Your task to perform on an android device: change notifications settings Image 0: 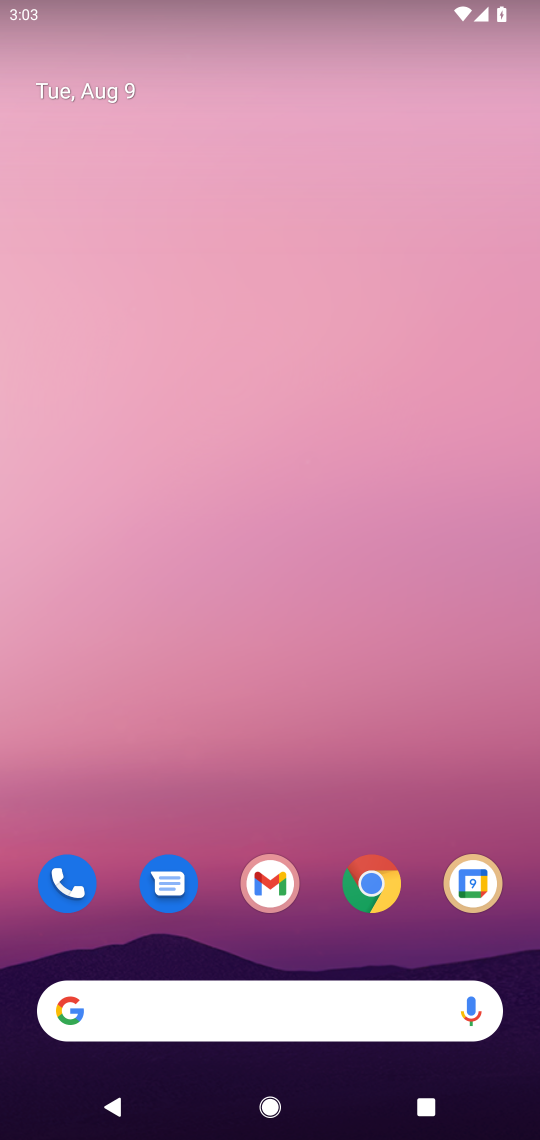
Step 0: drag from (417, 958) to (399, 22)
Your task to perform on an android device: change notifications settings Image 1: 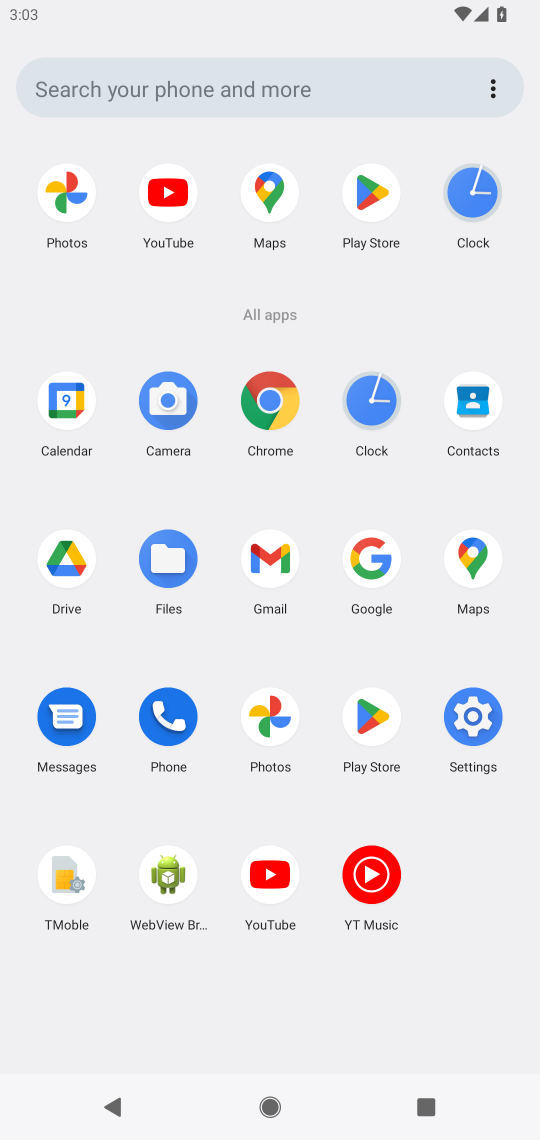
Step 1: click (476, 721)
Your task to perform on an android device: change notifications settings Image 2: 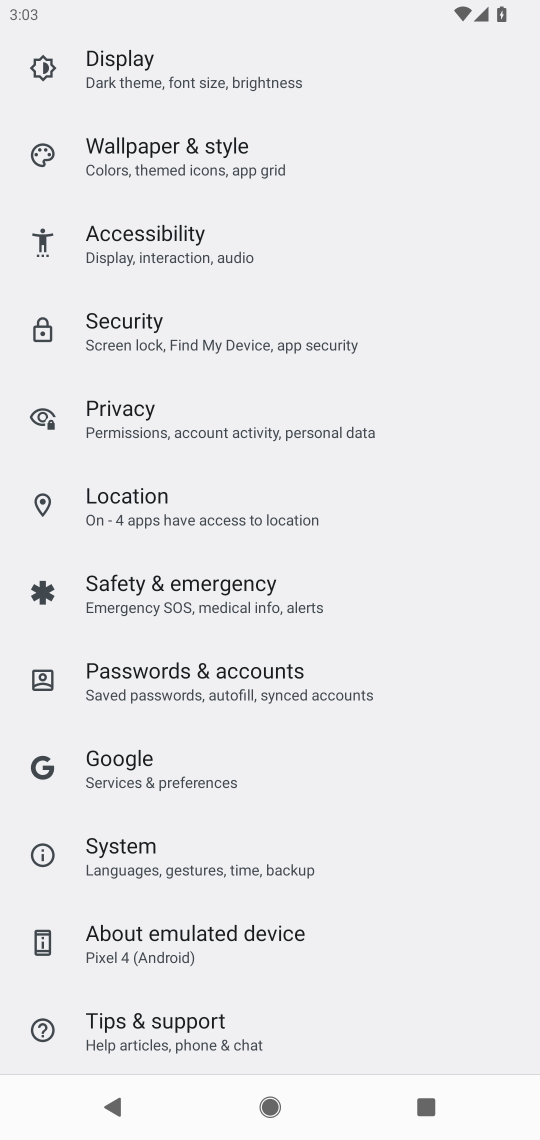
Step 2: drag from (380, 256) to (383, 783)
Your task to perform on an android device: change notifications settings Image 3: 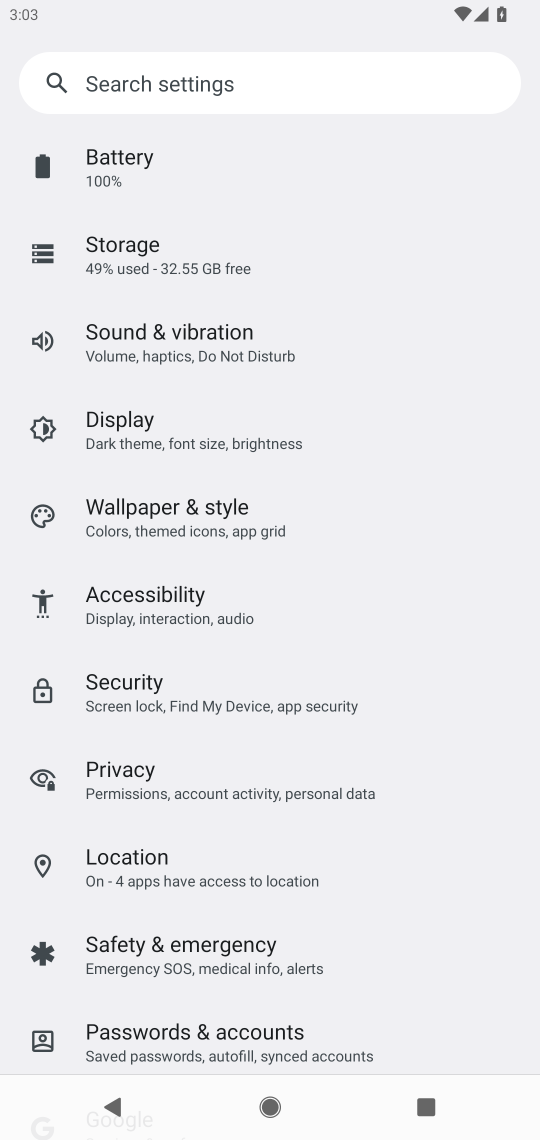
Step 3: drag from (374, 286) to (408, 732)
Your task to perform on an android device: change notifications settings Image 4: 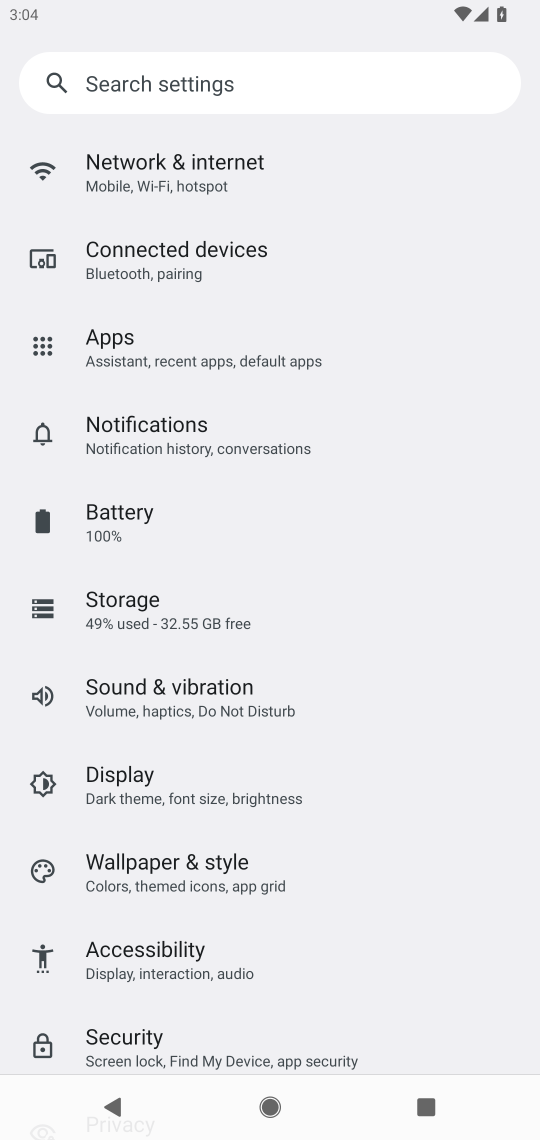
Step 4: click (124, 428)
Your task to perform on an android device: change notifications settings Image 5: 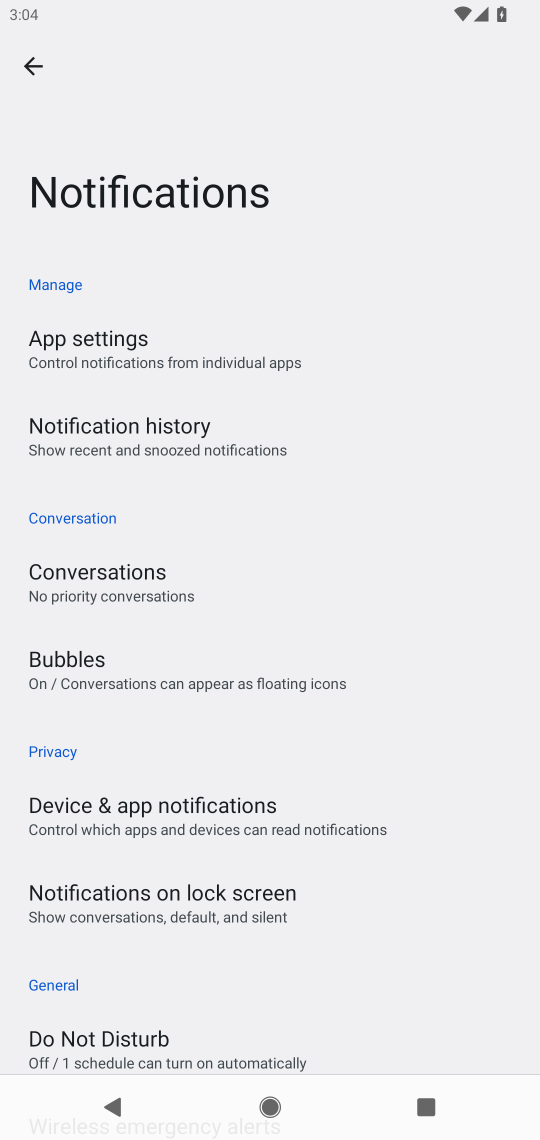
Step 5: drag from (373, 972) to (377, 772)
Your task to perform on an android device: change notifications settings Image 6: 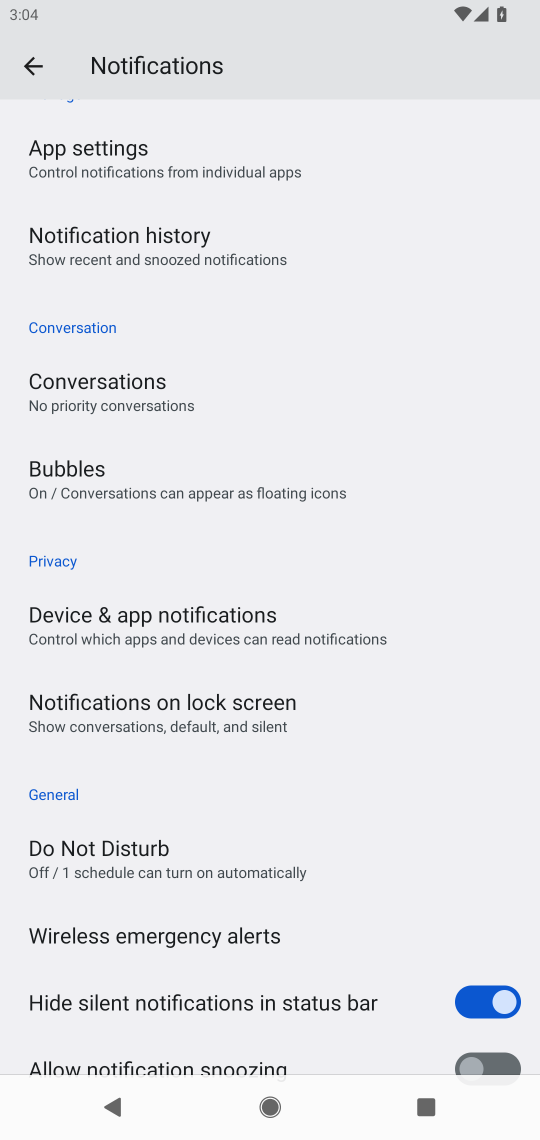
Step 6: drag from (363, 942) to (371, 221)
Your task to perform on an android device: change notifications settings Image 7: 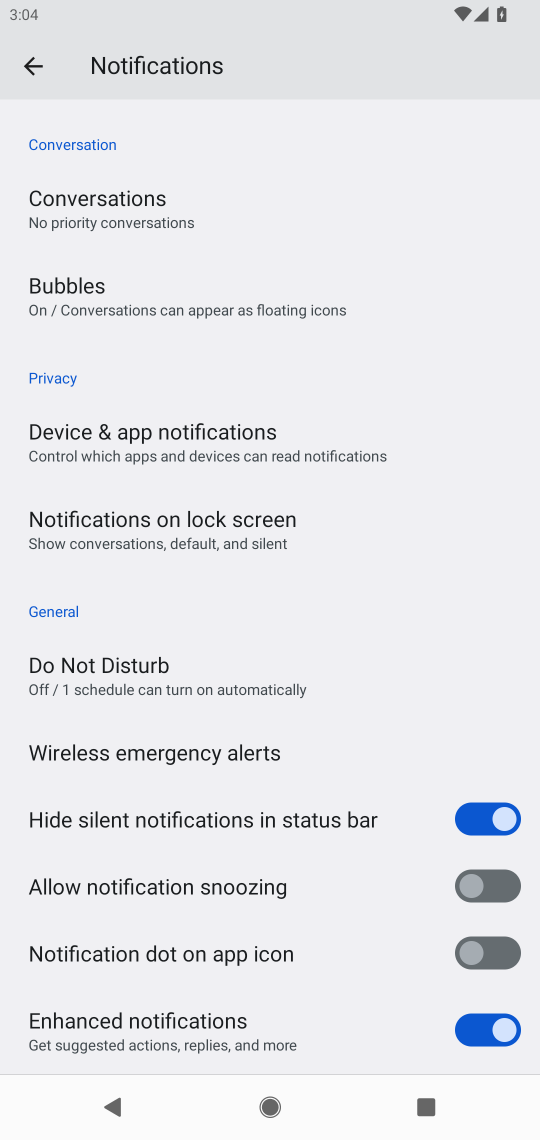
Step 7: click (489, 821)
Your task to perform on an android device: change notifications settings Image 8: 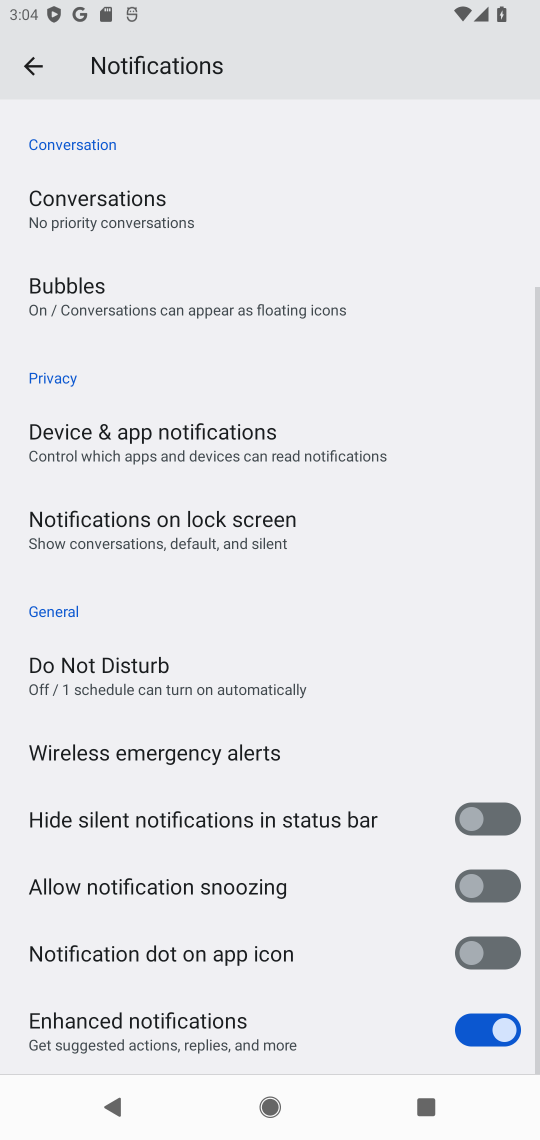
Step 8: click (485, 1043)
Your task to perform on an android device: change notifications settings Image 9: 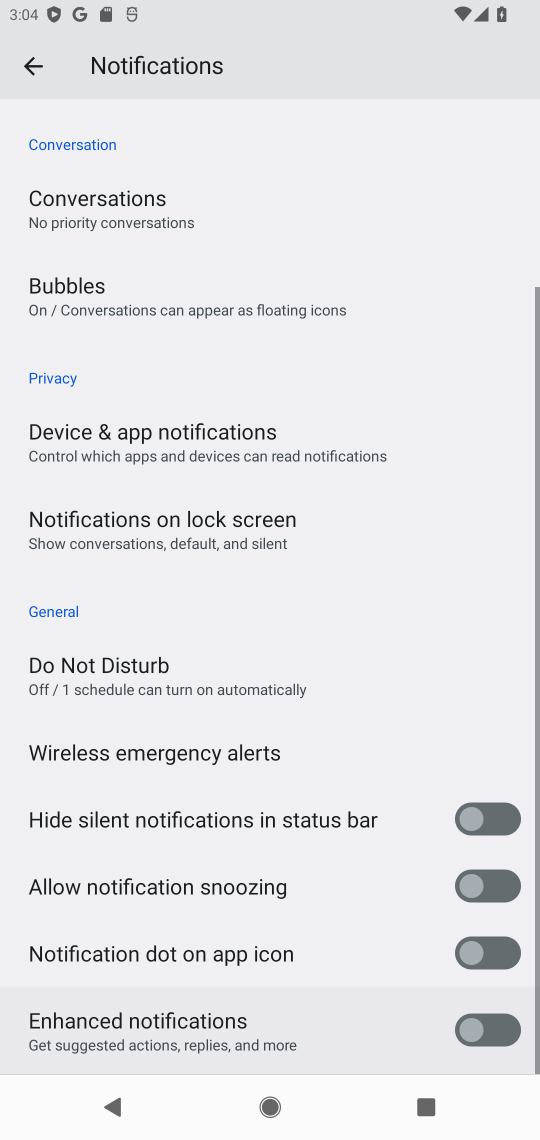
Step 9: click (497, 883)
Your task to perform on an android device: change notifications settings Image 10: 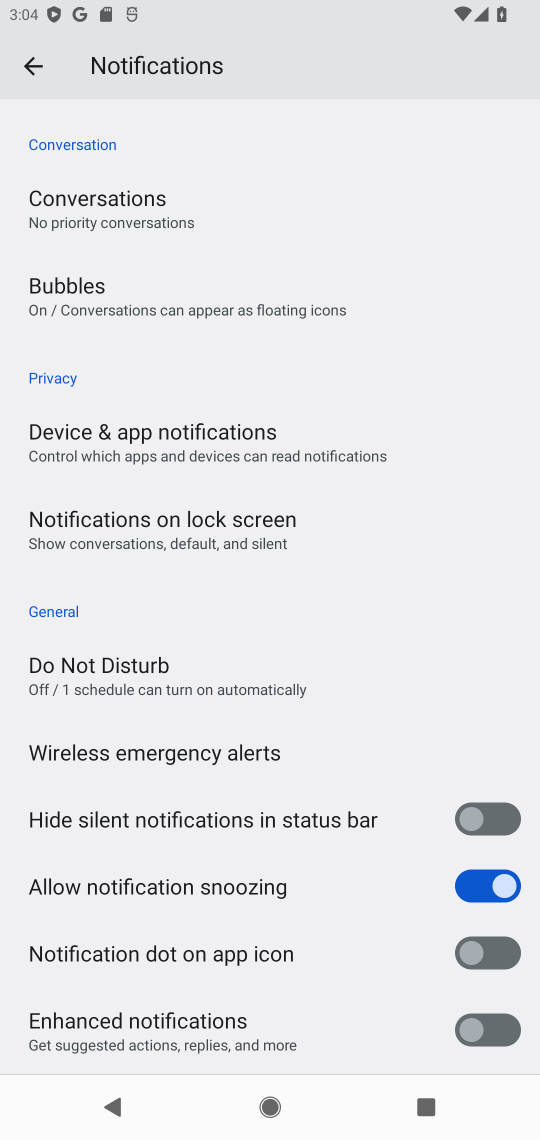
Step 10: task complete